Your task to perform on an android device: Open the calendar and show me this week's events? Image 0: 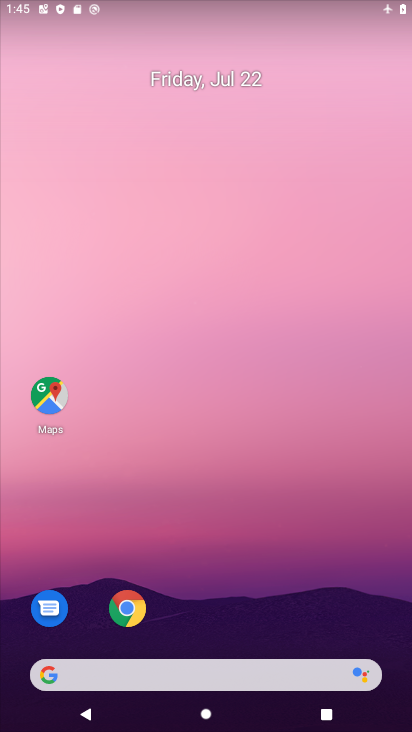
Step 0: drag from (240, 717) to (305, 78)
Your task to perform on an android device: Open the calendar and show me this week's events? Image 1: 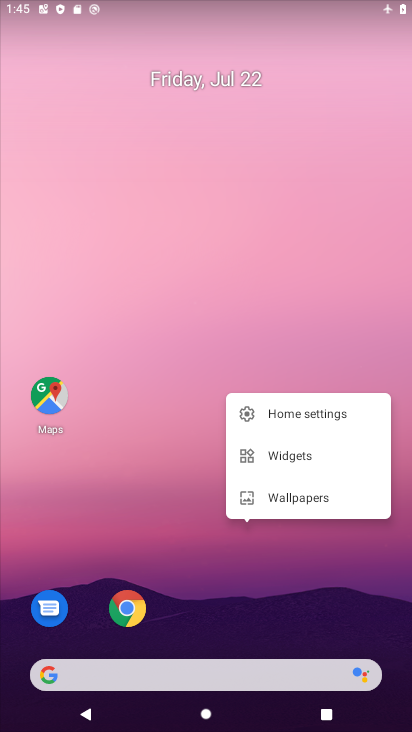
Step 1: click (233, 299)
Your task to perform on an android device: Open the calendar and show me this week's events? Image 2: 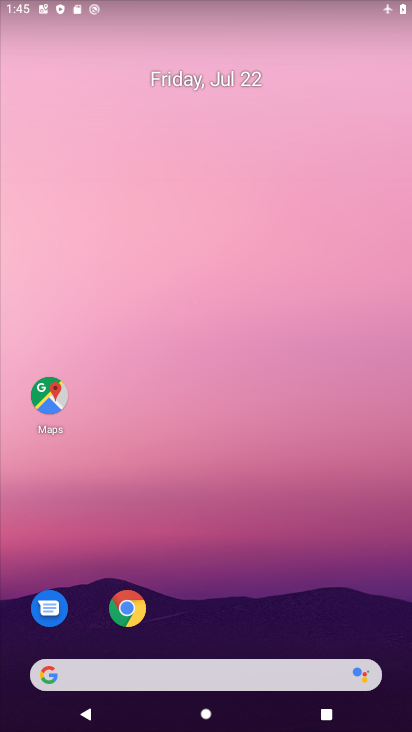
Step 2: drag from (244, 705) to (262, 129)
Your task to perform on an android device: Open the calendar and show me this week's events? Image 3: 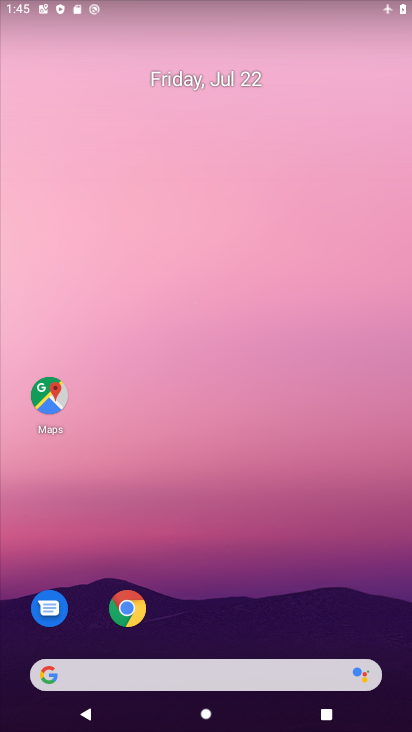
Step 3: drag from (235, 688) to (248, 140)
Your task to perform on an android device: Open the calendar and show me this week's events? Image 4: 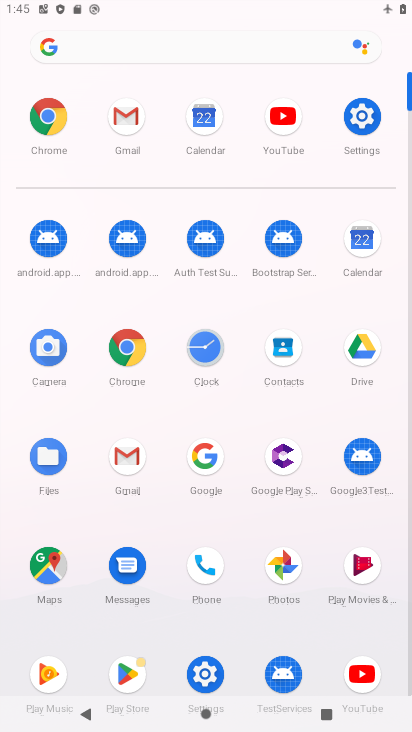
Step 4: click (359, 241)
Your task to perform on an android device: Open the calendar and show me this week's events? Image 5: 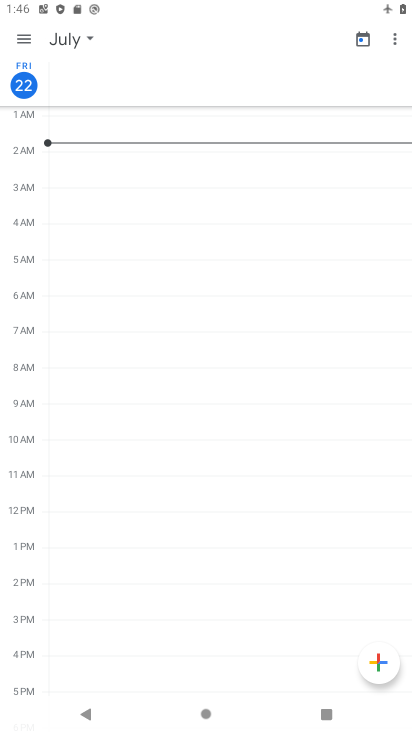
Step 5: click (24, 40)
Your task to perform on an android device: Open the calendar and show me this week's events? Image 6: 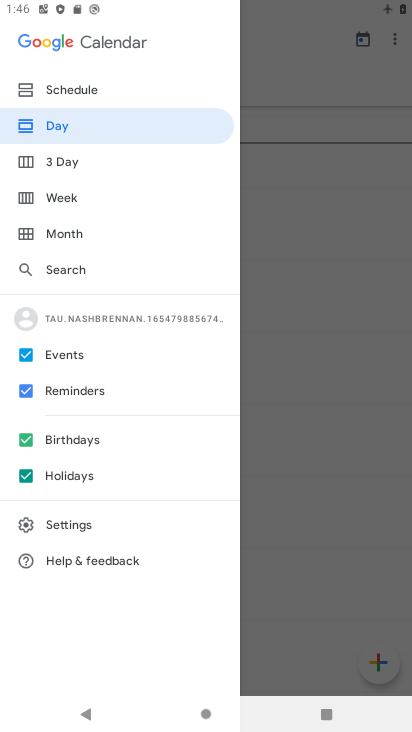
Step 6: click (23, 473)
Your task to perform on an android device: Open the calendar and show me this week's events? Image 7: 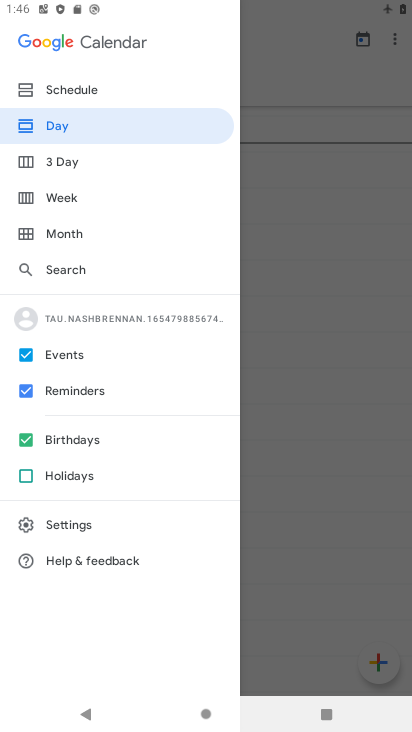
Step 7: click (25, 438)
Your task to perform on an android device: Open the calendar and show me this week's events? Image 8: 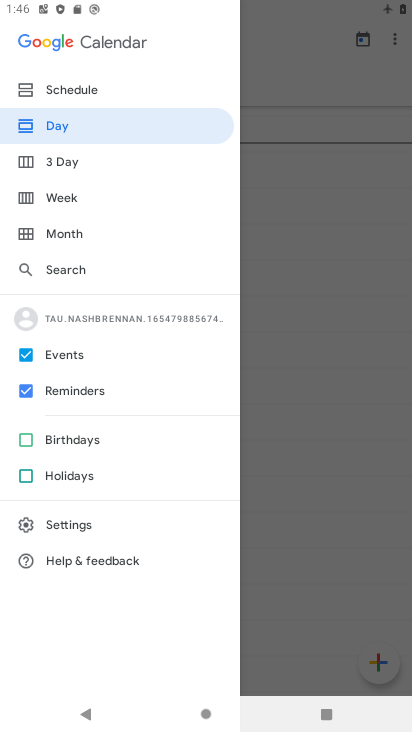
Step 8: click (22, 385)
Your task to perform on an android device: Open the calendar and show me this week's events? Image 9: 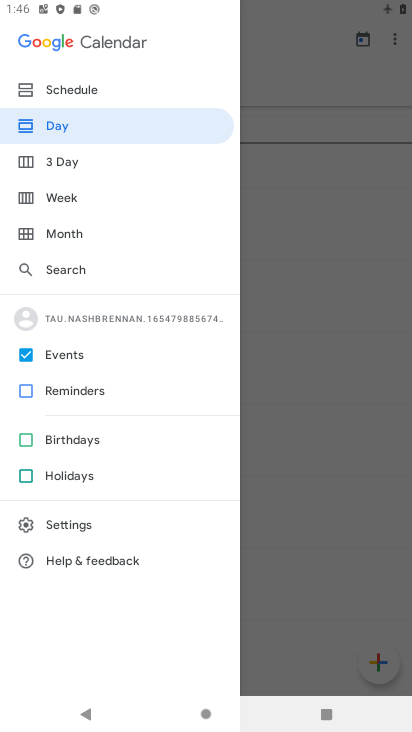
Step 9: click (69, 195)
Your task to perform on an android device: Open the calendar and show me this week's events? Image 10: 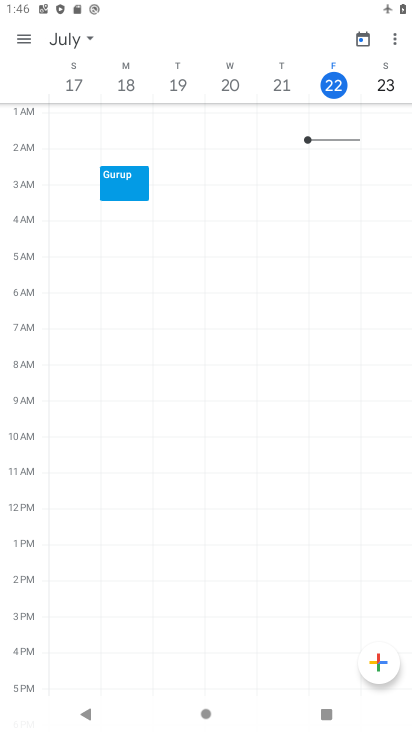
Step 10: task complete